Your task to perform on an android device: What's on my calendar tomorrow? Image 0: 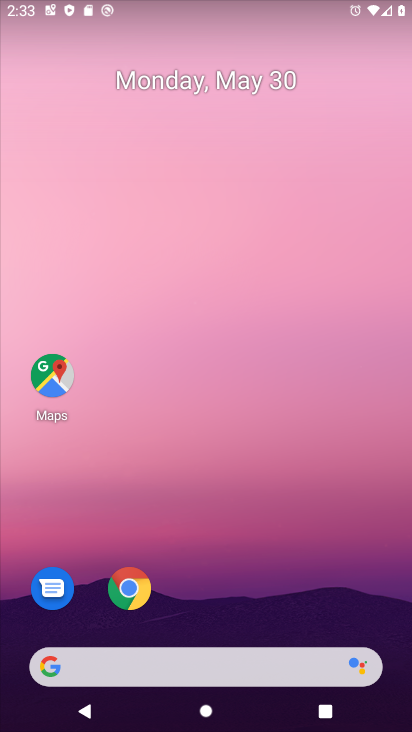
Step 0: drag from (269, 607) to (193, 126)
Your task to perform on an android device: What's on my calendar tomorrow? Image 1: 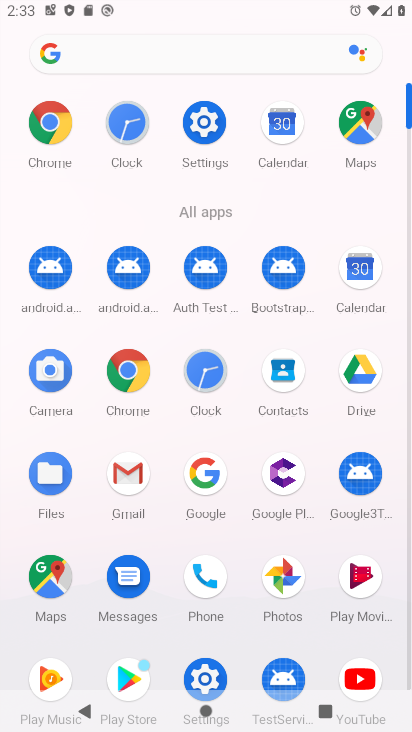
Step 1: click (357, 254)
Your task to perform on an android device: What's on my calendar tomorrow? Image 2: 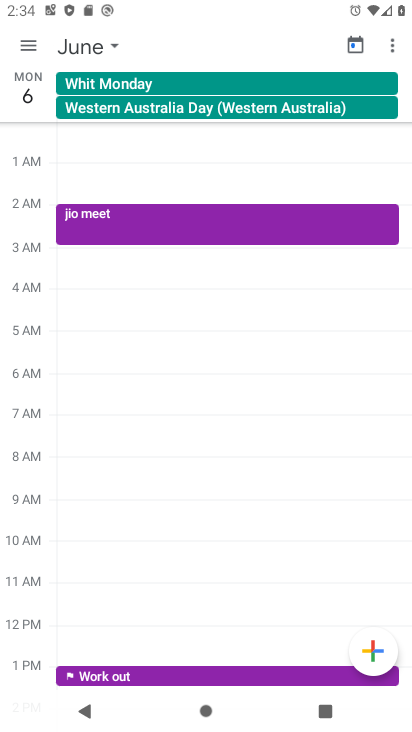
Step 2: click (34, 52)
Your task to perform on an android device: What's on my calendar tomorrow? Image 3: 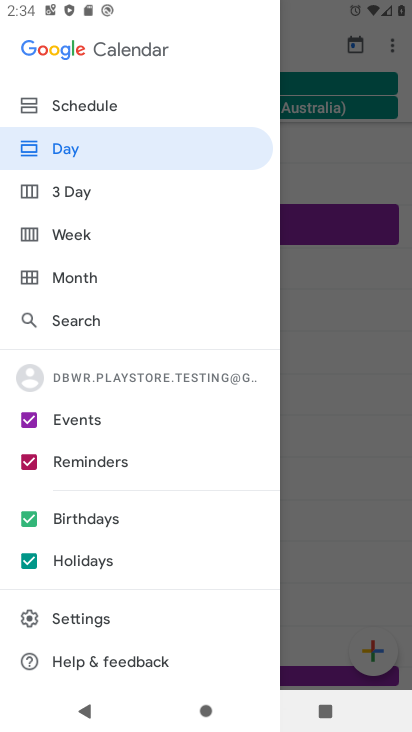
Step 3: click (325, 99)
Your task to perform on an android device: What's on my calendar tomorrow? Image 4: 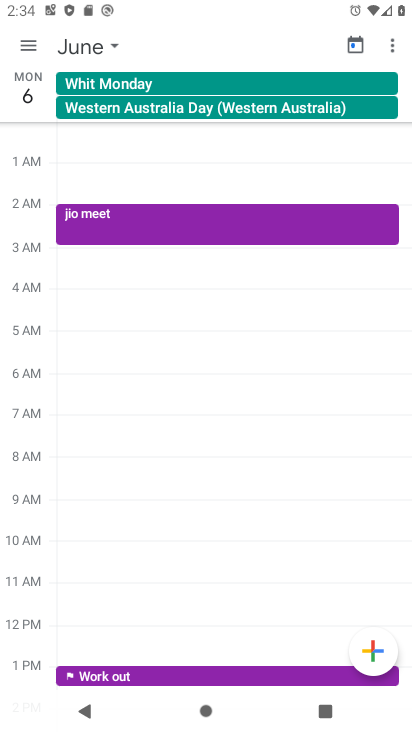
Step 4: click (106, 47)
Your task to perform on an android device: What's on my calendar tomorrow? Image 5: 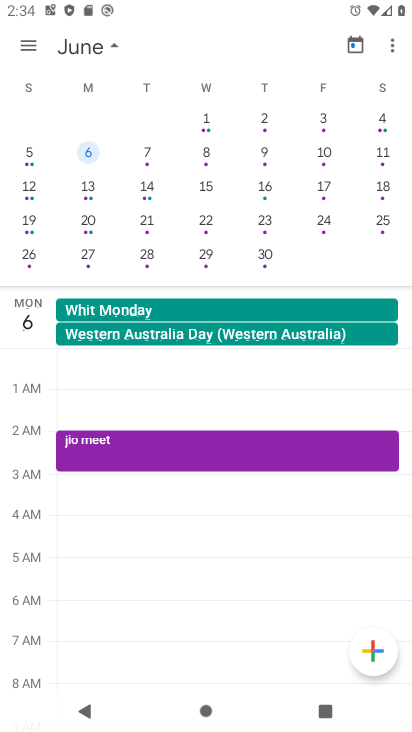
Step 5: click (408, 159)
Your task to perform on an android device: What's on my calendar tomorrow? Image 6: 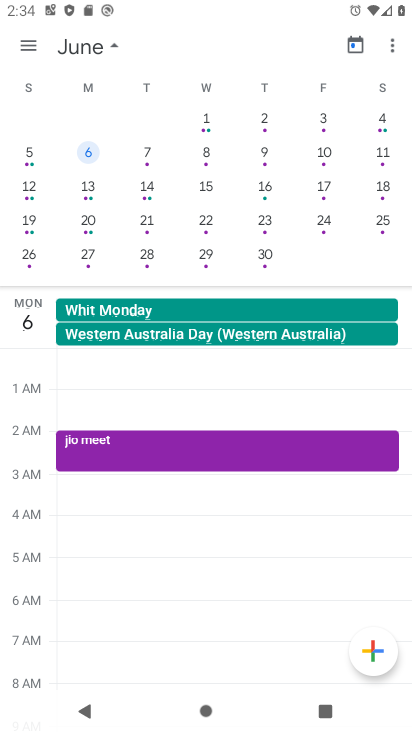
Step 6: click (16, 148)
Your task to perform on an android device: What's on my calendar tomorrow? Image 7: 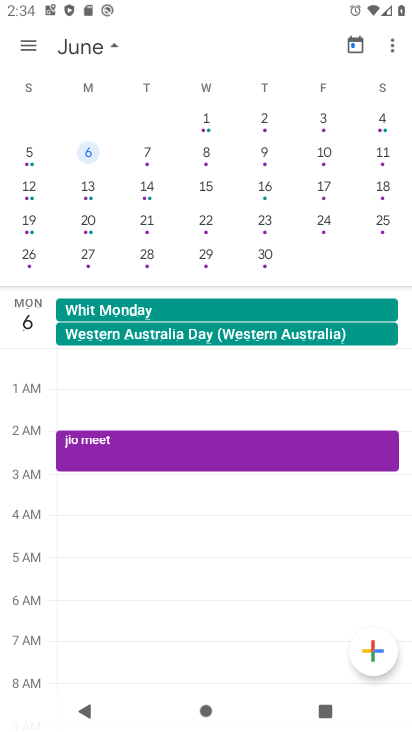
Step 7: drag from (100, 172) to (407, 121)
Your task to perform on an android device: What's on my calendar tomorrow? Image 8: 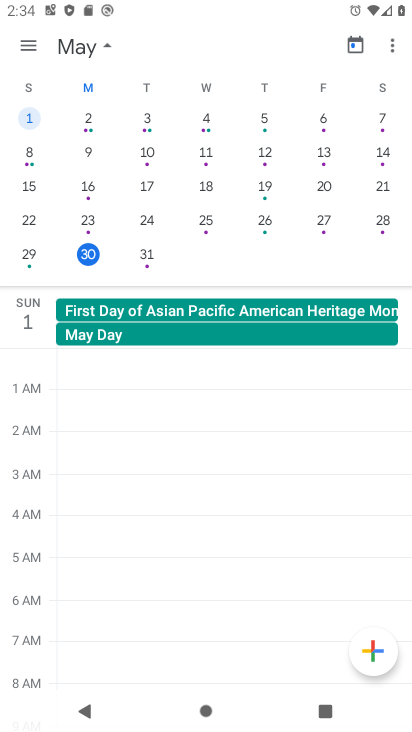
Step 8: click (147, 256)
Your task to perform on an android device: What's on my calendar tomorrow? Image 9: 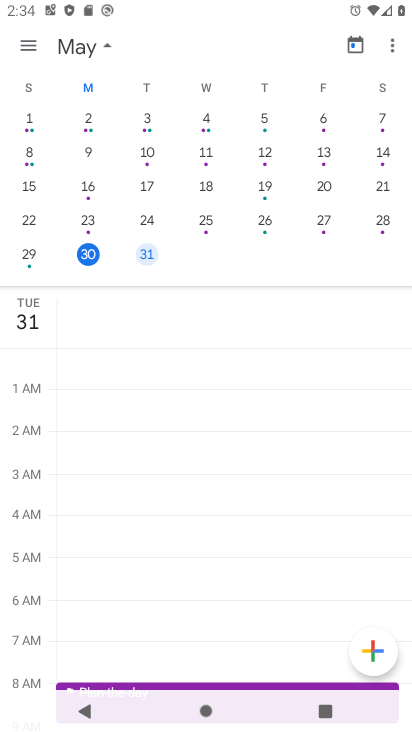
Step 9: task complete